Your task to perform on an android device: Go to calendar. Show me events next week Image 0: 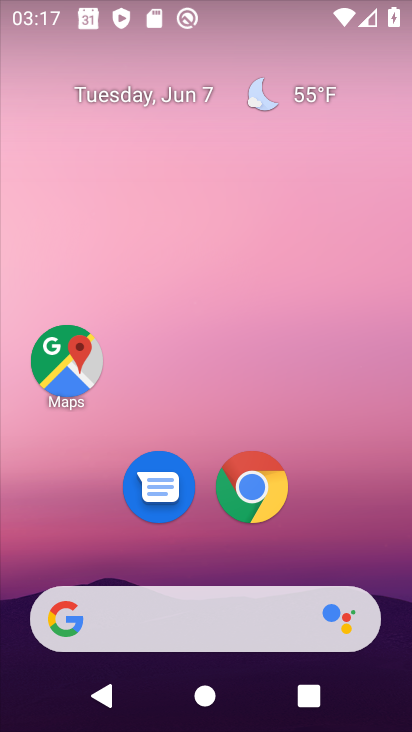
Step 0: drag from (238, 603) to (173, 122)
Your task to perform on an android device: Go to calendar. Show me events next week Image 1: 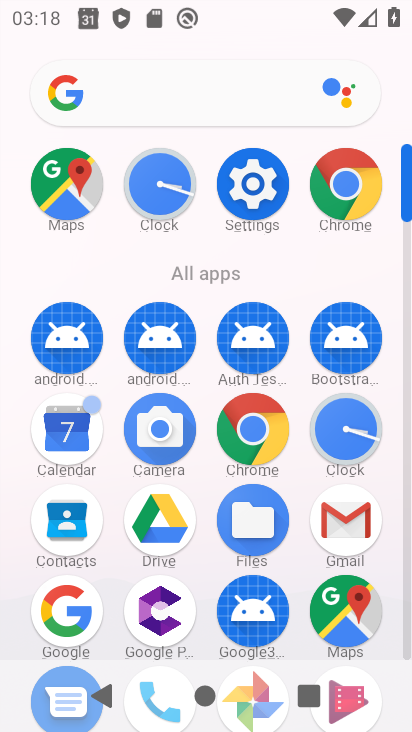
Step 1: click (50, 427)
Your task to perform on an android device: Go to calendar. Show me events next week Image 2: 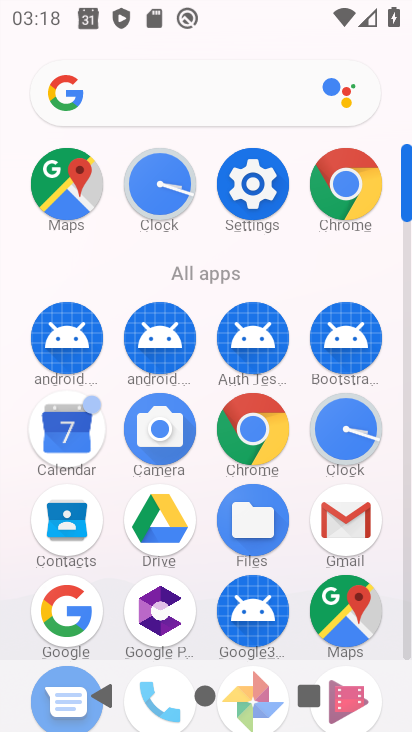
Step 2: click (49, 426)
Your task to perform on an android device: Go to calendar. Show me events next week Image 3: 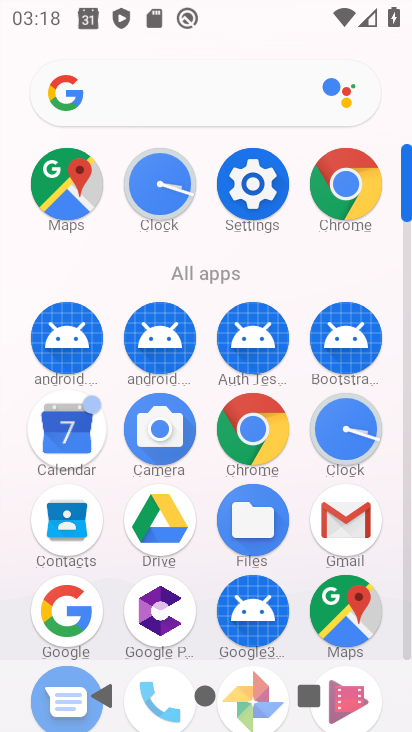
Step 3: click (49, 424)
Your task to perform on an android device: Go to calendar. Show me events next week Image 4: 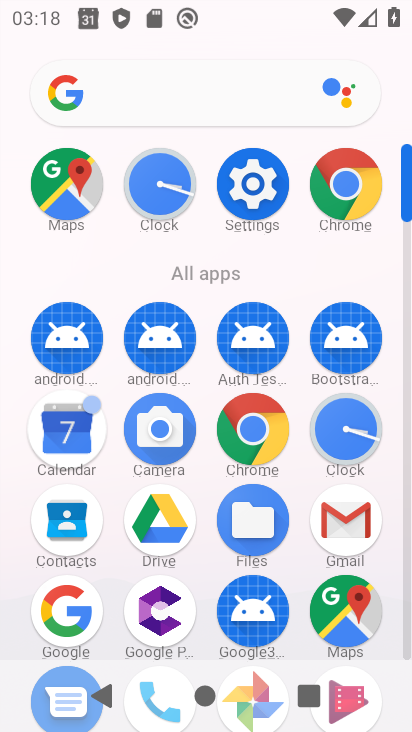
Step 4: click (49, 426)
Your task to perform on an android device: Go to calendar. Show me events next week Image 5: 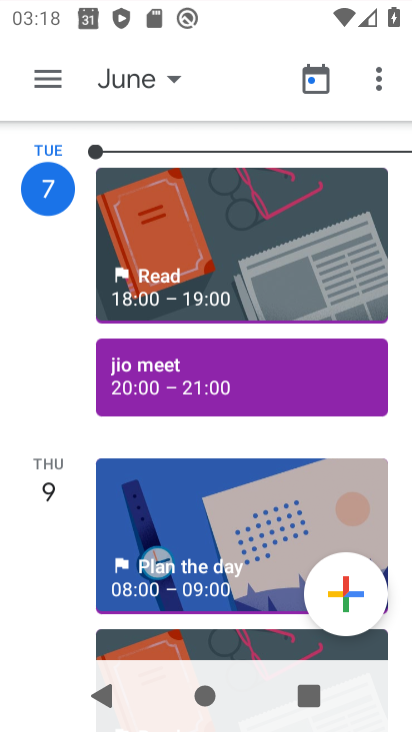
Step 5: click (49, 419)
Your task to perform on an android device: Go to calendar. Show me events next week Image 6: 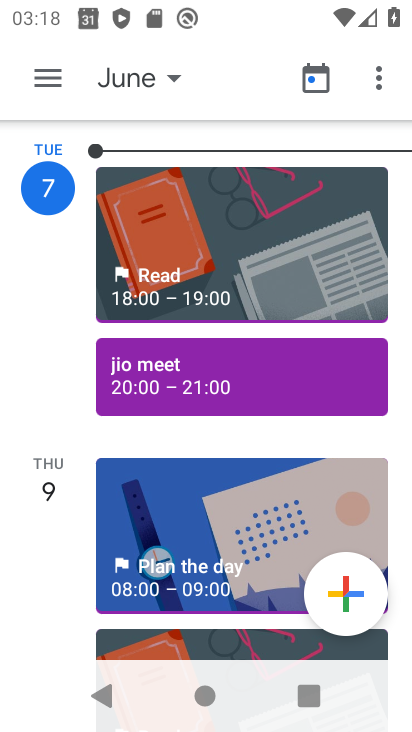
Step 6: click (175, 80)
Your task to perform on an android device: Go to calendar. Show me events next week Image 7: 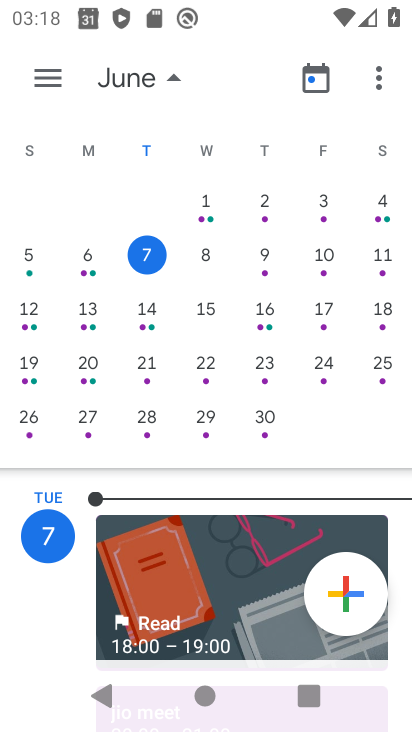
Step 7: click (206, 303)
Your task to perform on an android device: Go to calendar. Show me events next week Image 8: 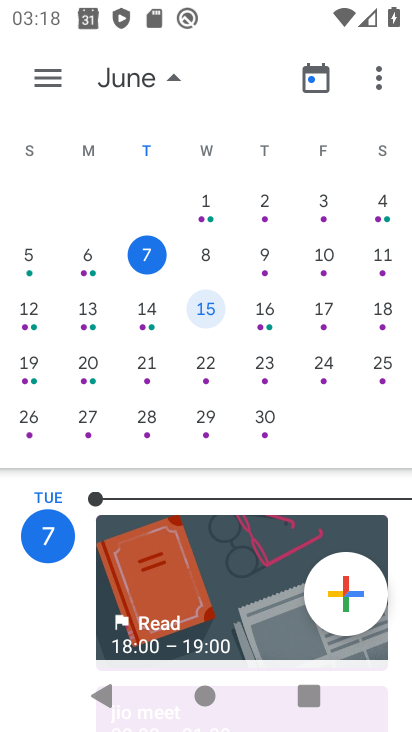
Step 8: click (206, 302)
Your task to perform on an android device: Go to calendar. Show me events next week Image 9: 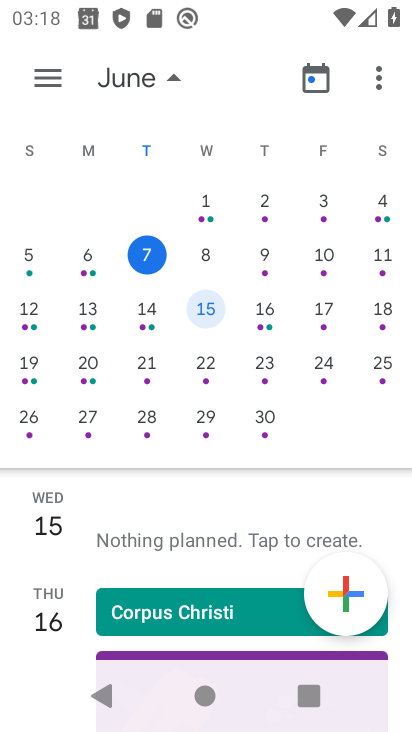
Step 9: click (206, 302)
Your task to perform on an android device: Go to calendar. Show me events next week Image 10: 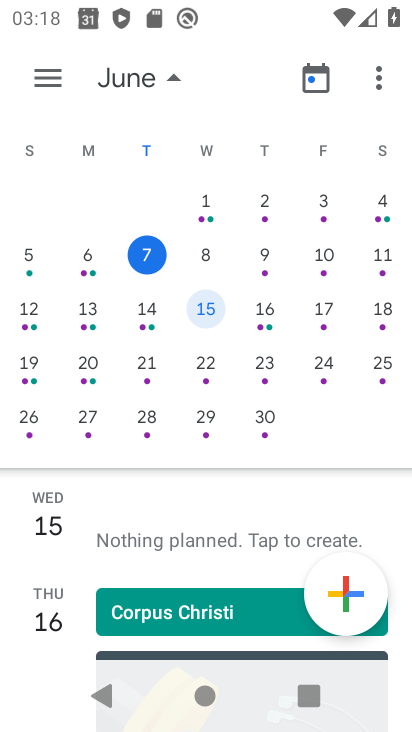
Step 10: click (206, 301)
Your task to perform on an android device: Go to calendar. Show me events next week Image 11: 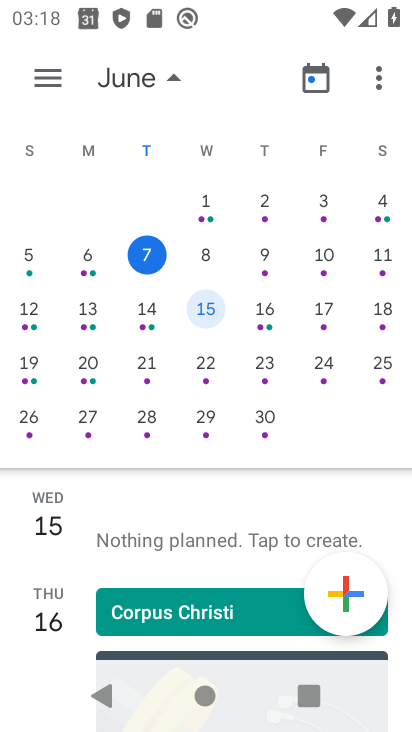
Step 11: click (205, 300)
Your task to perform on an android device: Go to calendar. Show me events next week Image 12: 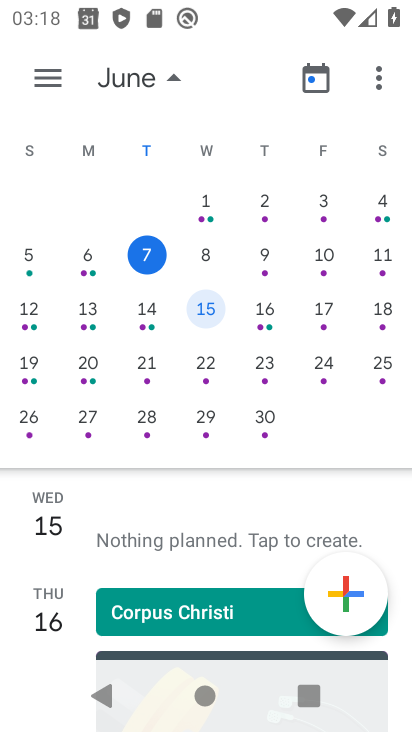
Step 12: click (202, 299)
Your task to perform on an android device: Go to calendar. Show me events next week Image 13: 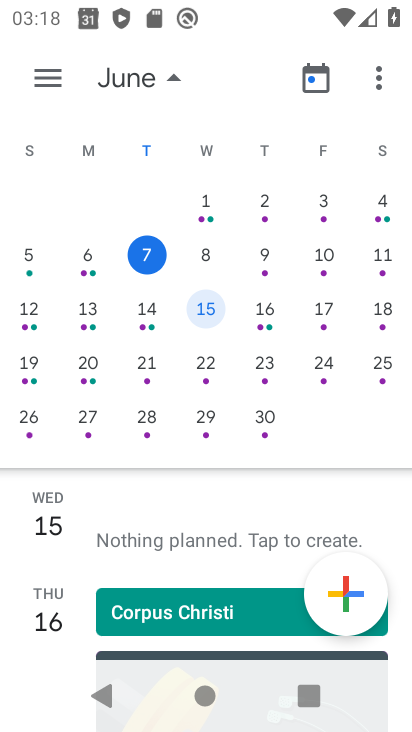
Step 13: click (199, 296)
Your task to perform on an android device: Go to calendar. Show me events next week Image 14: 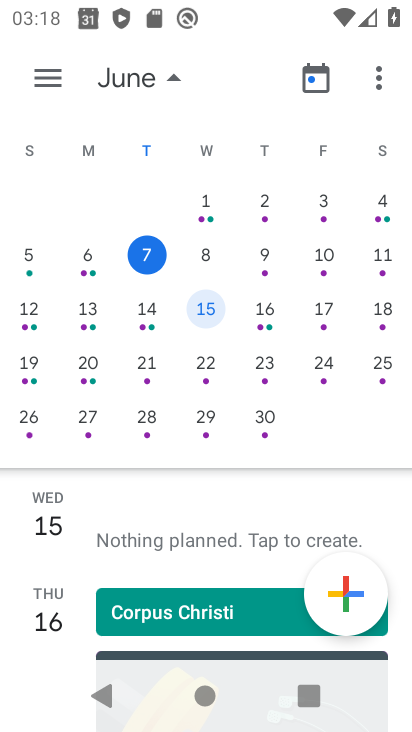
Step 14: click (188, 286)
Your task to perform on an android device: Go to calendar. Show me events next week Image 15: 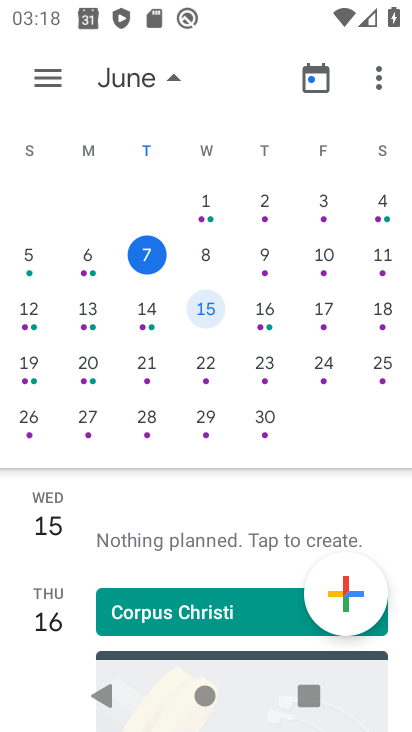
Step 15: click (191, 285)
Your task to perform on an android device: Go to calendar. Show me events next week Image 16: 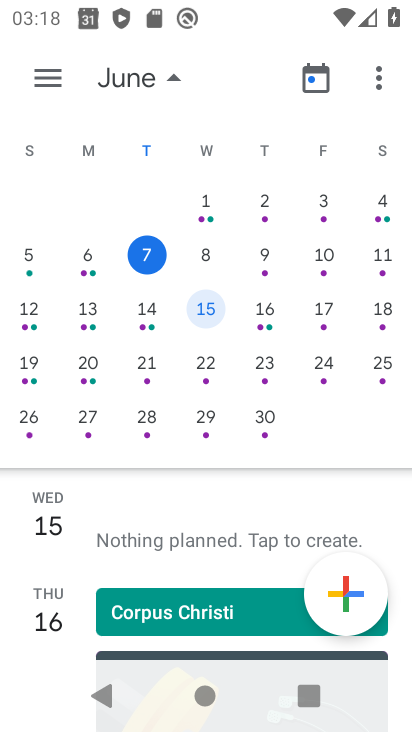
Step 16: click (191, 285)
Your task to perform on an android device: Go to calendar. Show me events next week Image 17: 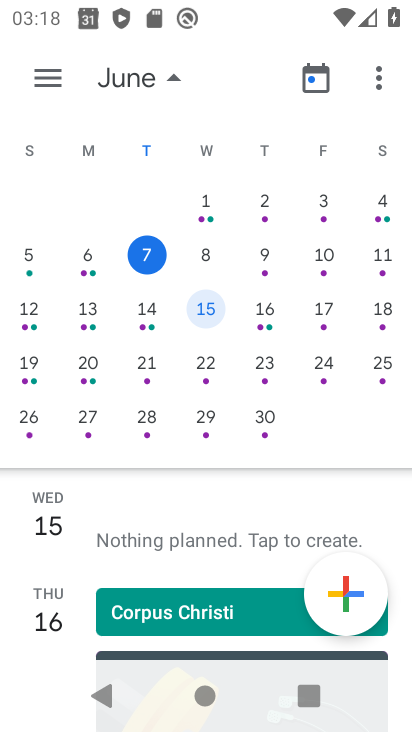
Step 17: click (192, 284)
Your task to perform on an android device: Go to calendar. Show me events next week Image 18: 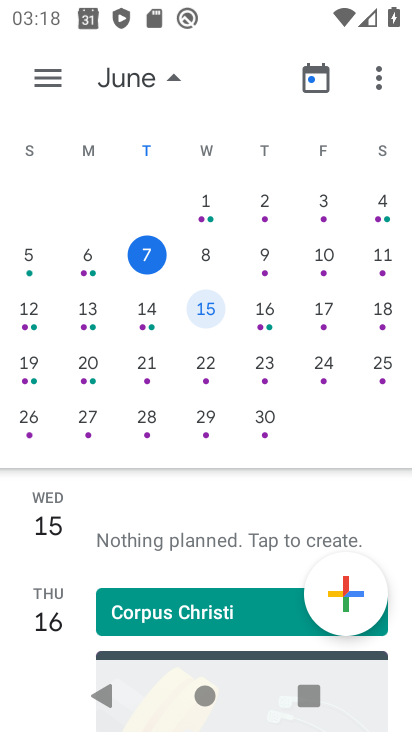
Step 18: click (191, 282)
Your task to perform on an android device: Go to calendar. Show me events next week Image 19: 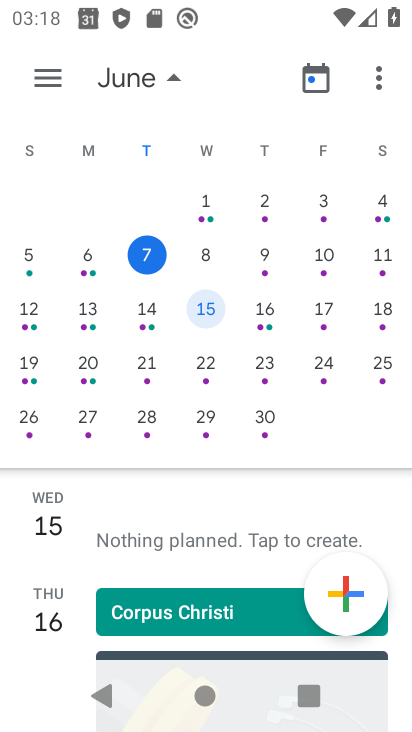
Step 19: click (180, 279)
Your task to perform on an android device: Go to calendar. Show me events next week Image 20: 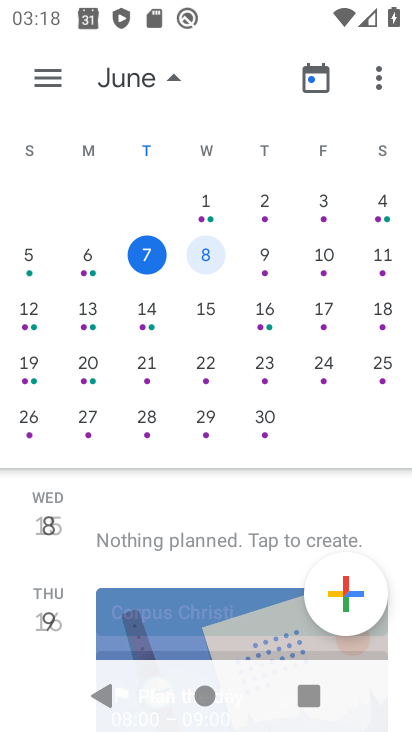
Step 20: click (178, 276)
Your task to perform on an android device: Go to calendar. Show me events next week Image 21: 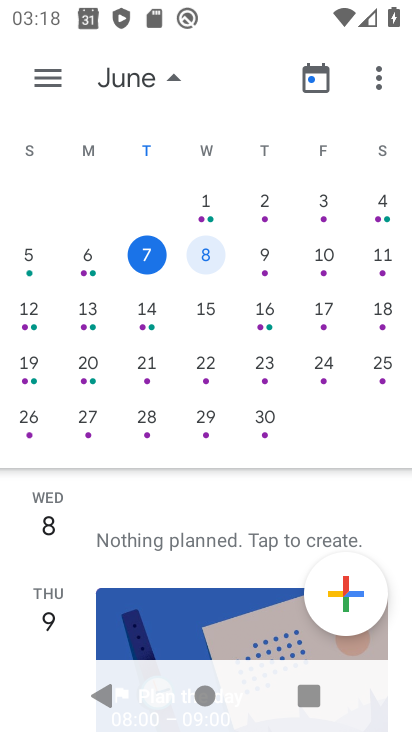
Step 21: click (177, 275)
Your task to perform on an android device: Go to calendar. Show me events next week Image 22: 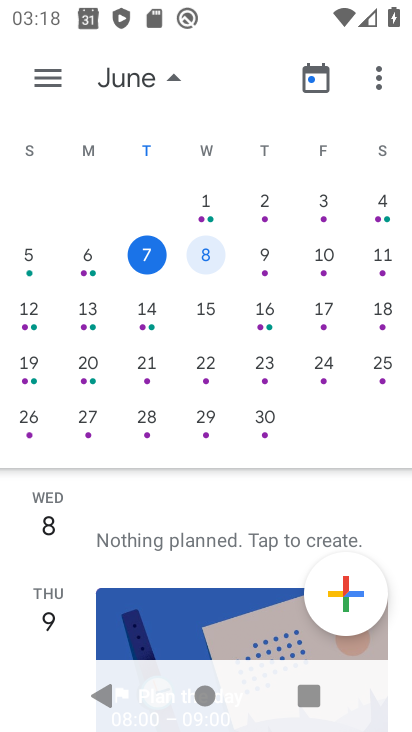
Step 22: click (176, 276)
Your task to perform on an android device: Go to calendar. Show me events next week Image 23: 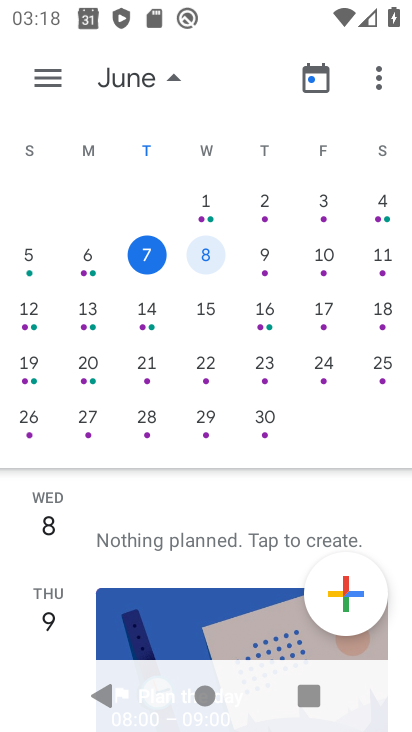
Step 23: click (180, 276)
Your task to perform on an android device: Go to calendar. Show me events next week Image 24: 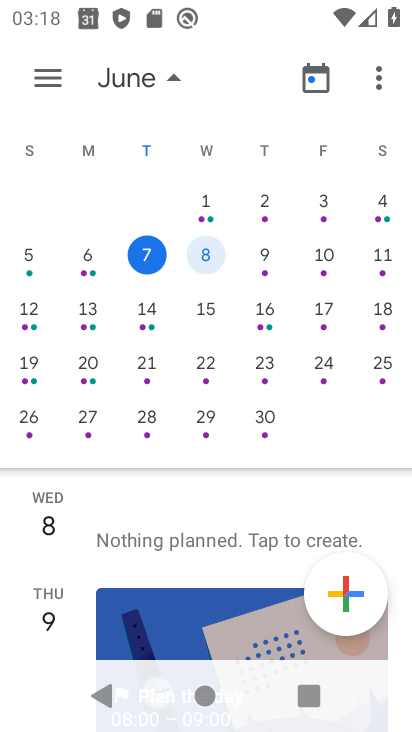
Step 24: task complete